Your task to perform on an android device: open app "Google Duo" Image 0: 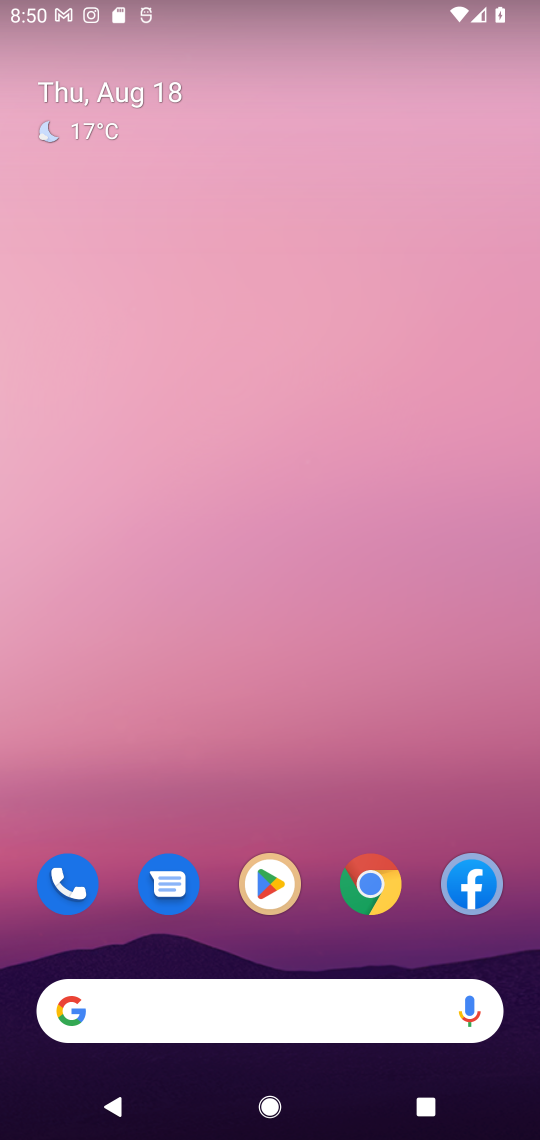
Step 0: drag from (187, 1031) to (272, 197)
Your task to perform on an android device: open app "Google Duo" Image 1: 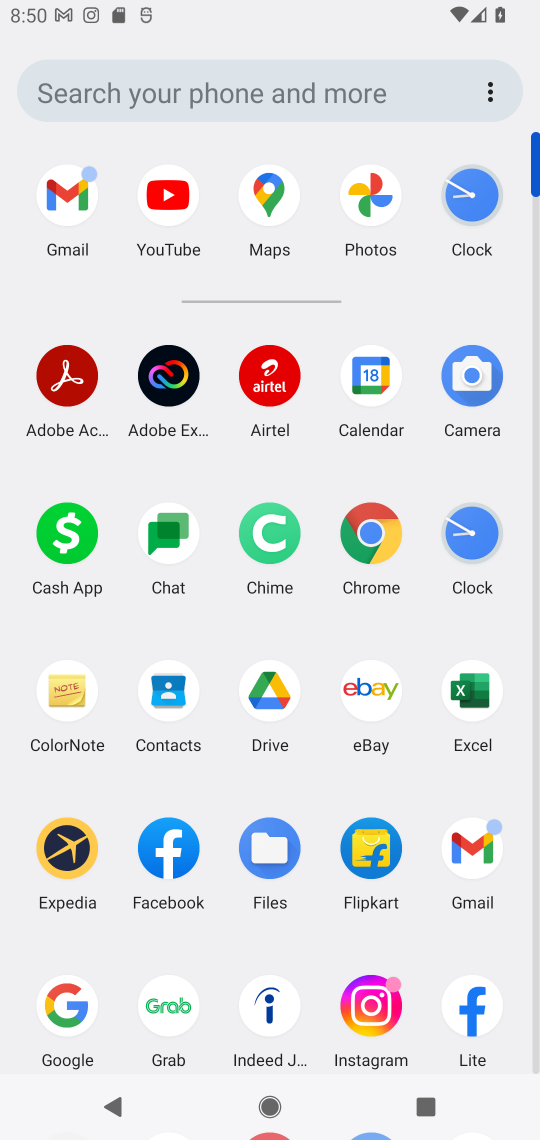
Step 1: drag from (213, 929) to (222, 300)
Your task to perform on an android device: open app "Google Duo" Image 2: 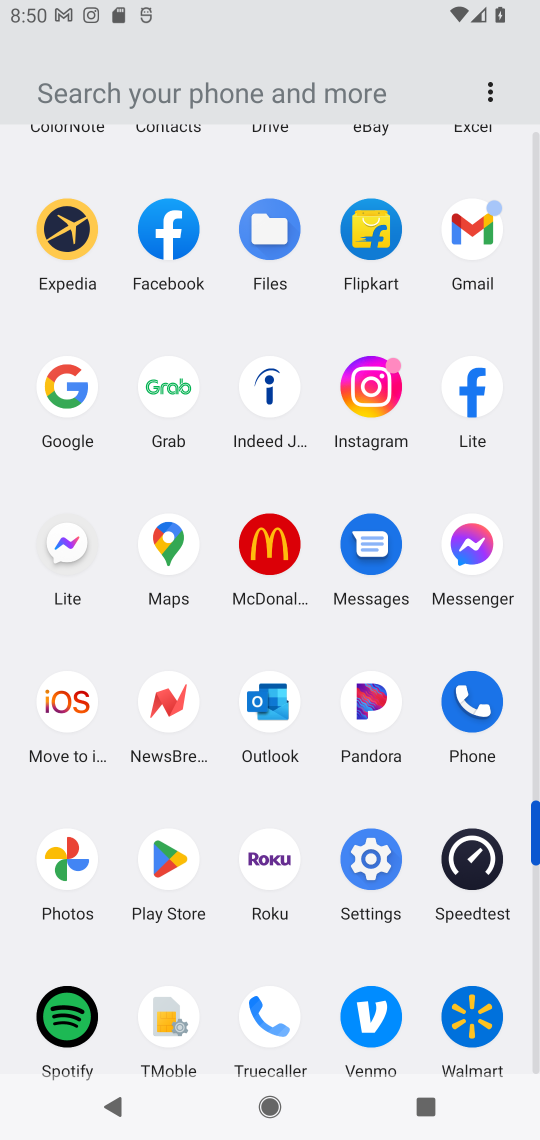
Step 2: click (165, 855)
Your task to perform on an android device: open app "Google Duo" Image 3: 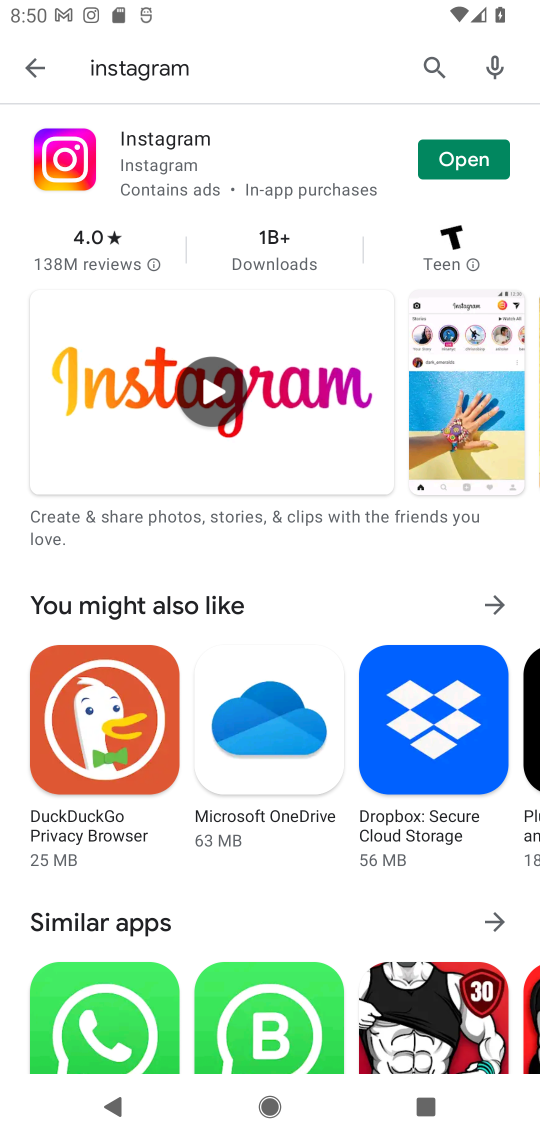
Step 3: press back button
Your task to perform on an android device: open app "Google Duo" Image 4: 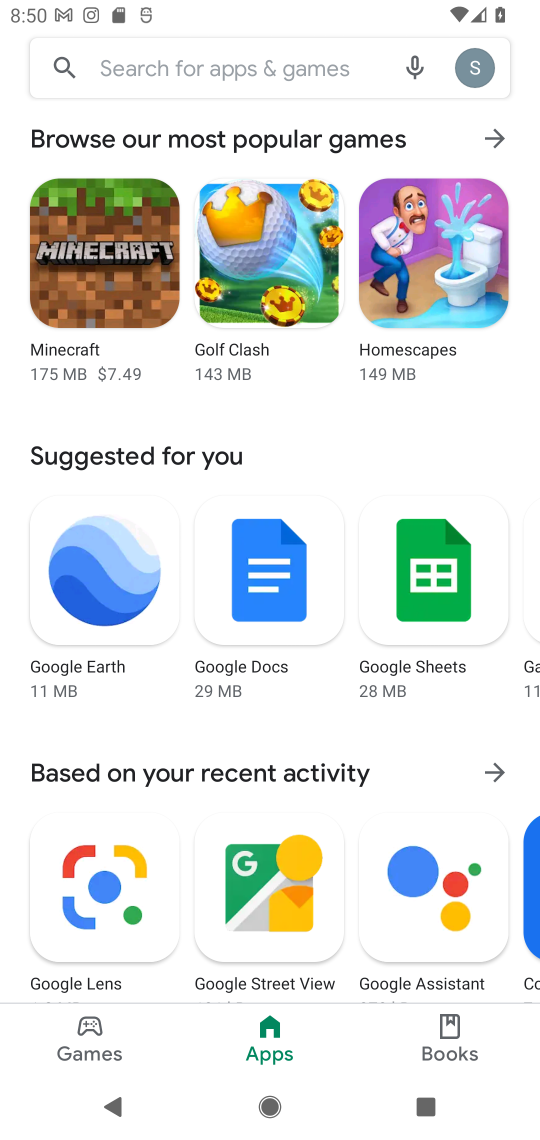
Step 4: click (264, 65)
Your task to perform on an android device: open app "Google Duo" Image 5: 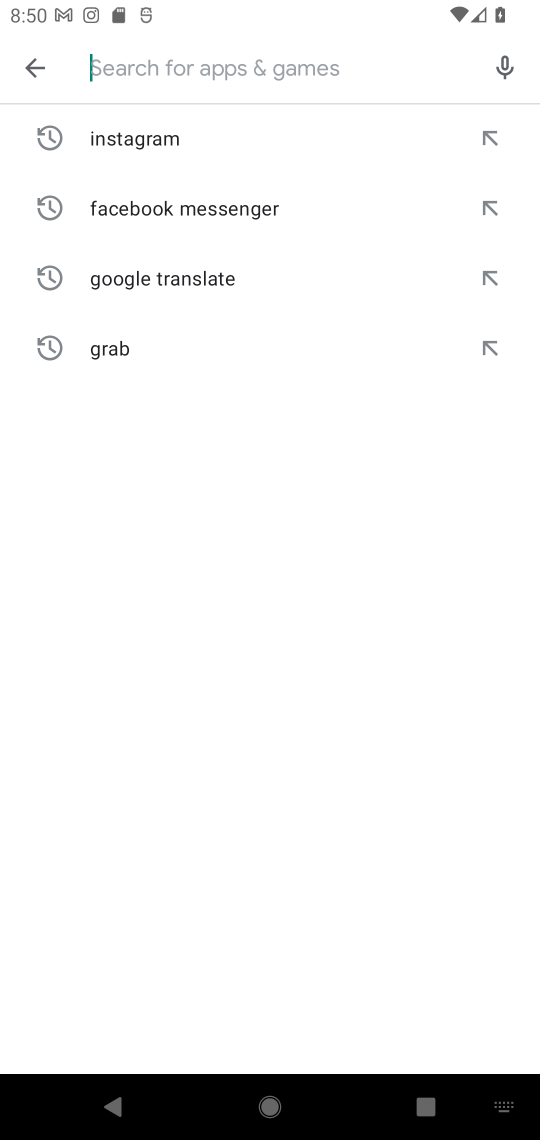
Step 5: type "Google Duo"
Your task to perform on an android device: open app "Google Duo" Image 6: 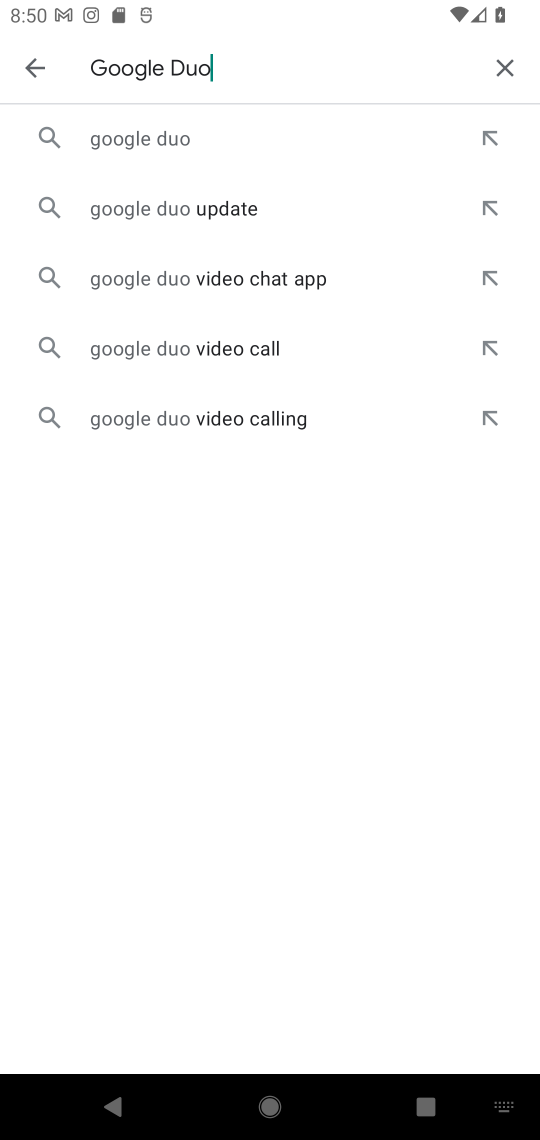
Step 6: click (155, 148)
Your task to perform on an android device: open app "Google Duo" Image 7: 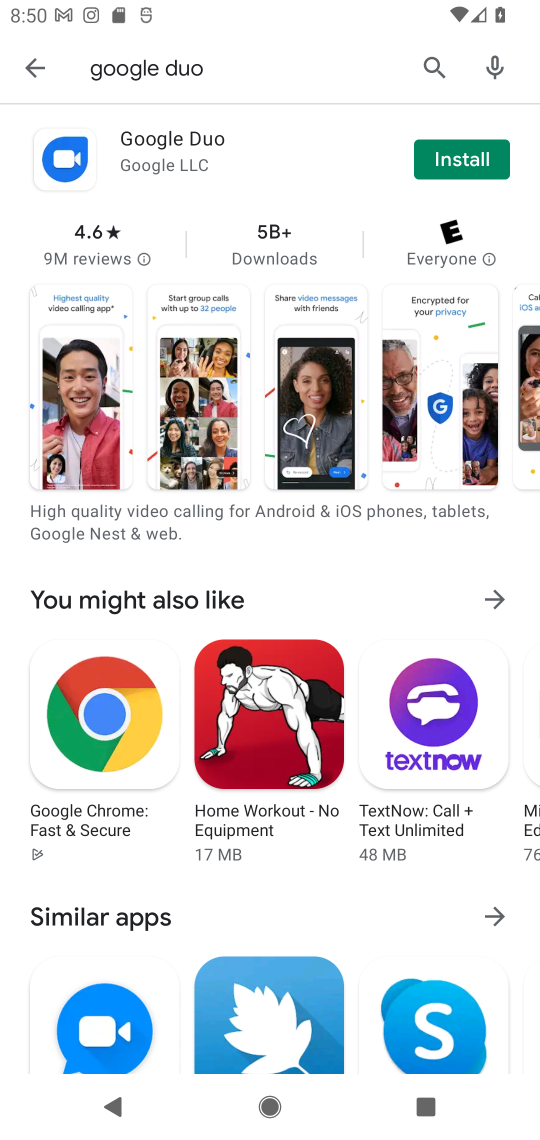
Step 7: task complete